Your task to perform on an android device: see tabs open on other devices in the chrome app Image 0: 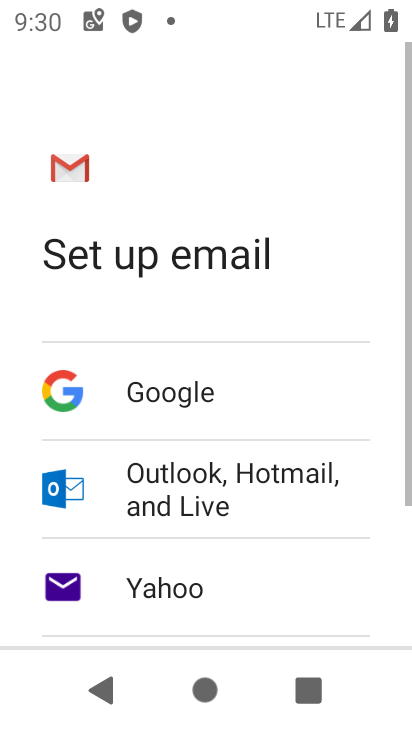
Step 0: press home button
Your task to perform on an android device: see tabs open on other devices in the chrome app Image 1: 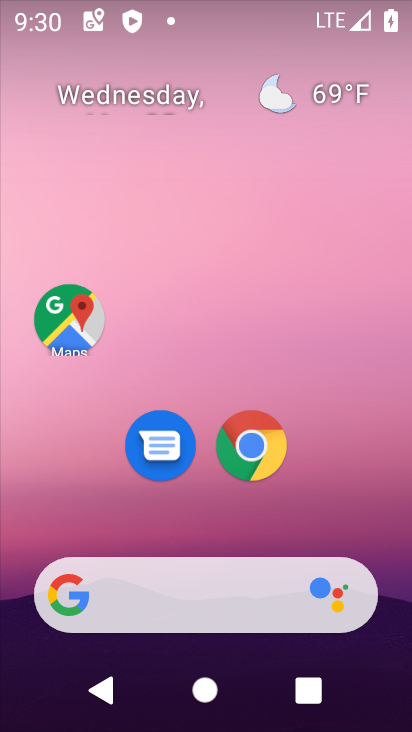
Step 1: click (270, 455)
Your task to perform on an android device: see tabs open on other devices in the chrome app Image 2: 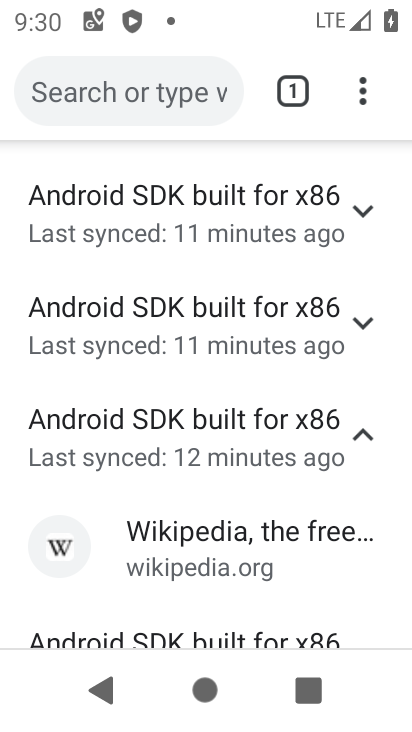
Step 2: click (364, 87)
Your task to perform on an android device: see tabs open on other devices in the chrome app Image 3: 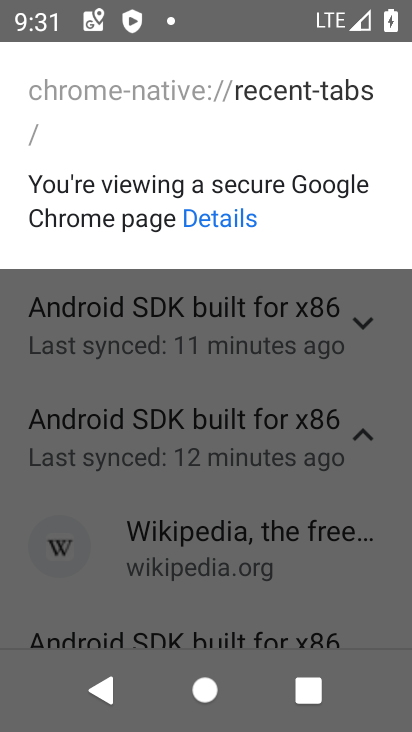
Step 3: task complete